Your task to perform on an android device: turn vacation reply on in the gmail app Image 0: 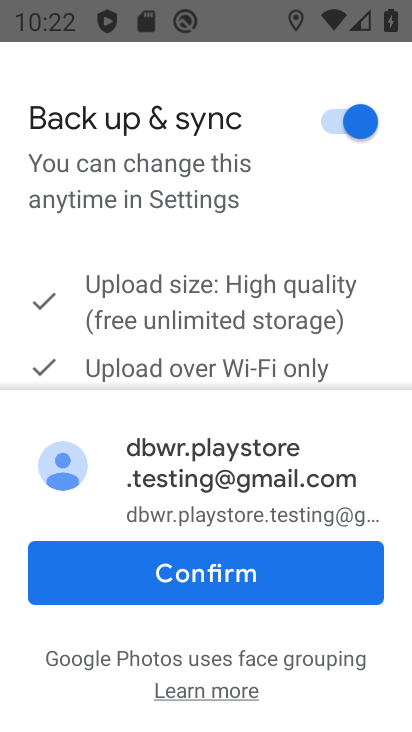
Step 0: press home button
Your task to perform on an android device: turn vacation reply on in the gmail app Image 1: 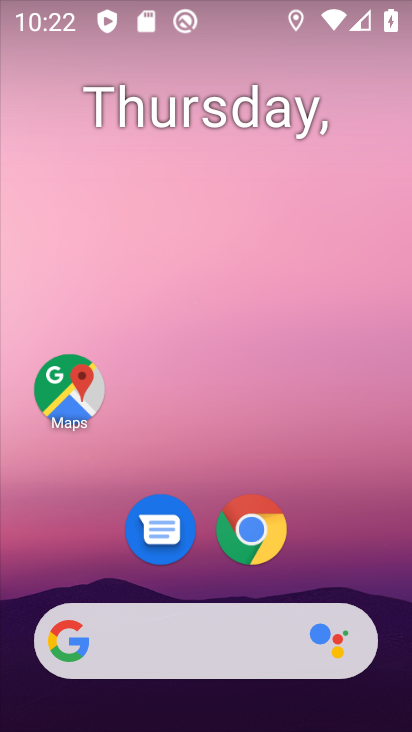
Step 1: drag from (196, 486) to (265, 16)
Your task to perform on an android device: turn vacation reply on in the gmail app Image 2: 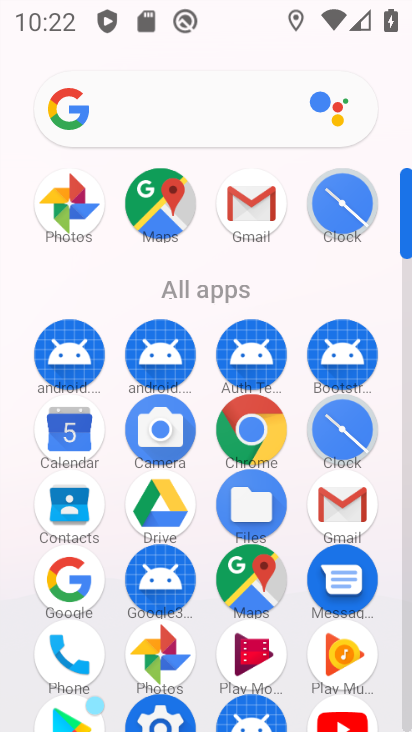
Step 2: click (255, 223)
Your task to perform on an android device: turn vacation reply on in the gmail app Image 3: 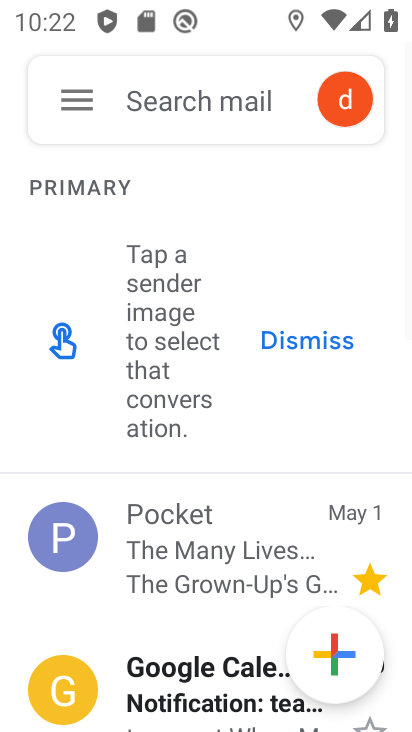
Step 3: click (73, 113)
Your task to perform on an android device: turn vacation reply on in the gmail app Image 4: 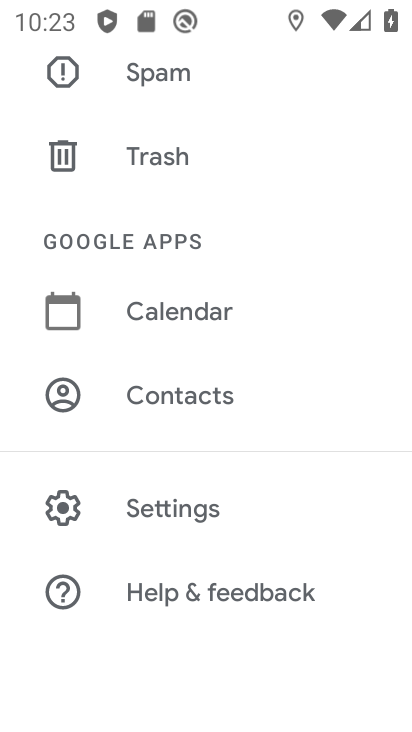
Step 4: click (154, 514)
Your task to perform on an android device: turn vacation reply on in the gmail app Image 5: 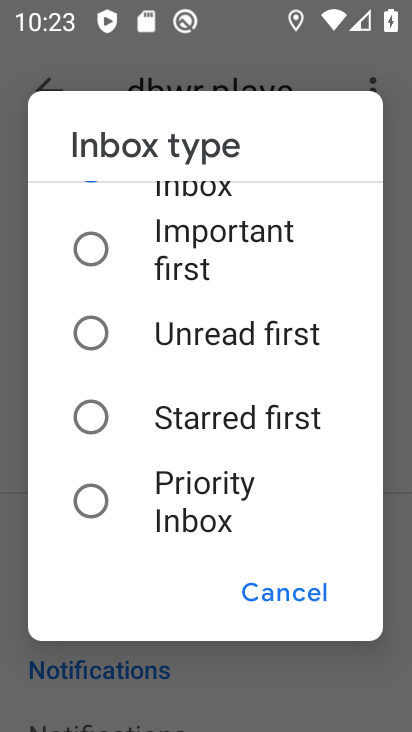
Step 5: click (261, 595)
Your task to perform on an android device: turn vacation reply on in the gmail app Image 6: 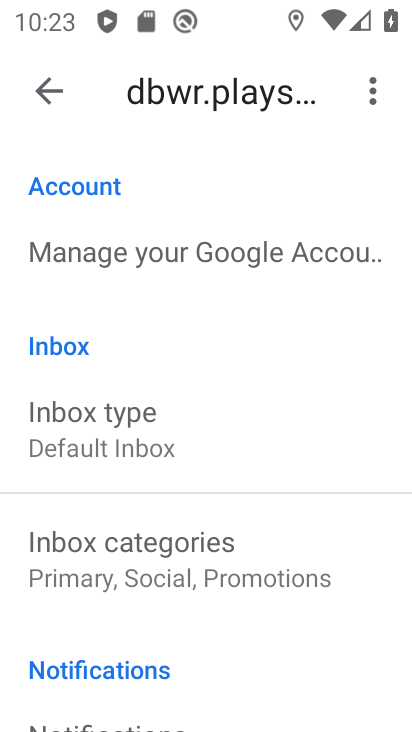
Step 6: drag from (160, 585) to (253, 151)
Your task to perform on an android device: turn vacation reply on in the gmail app Image 7: 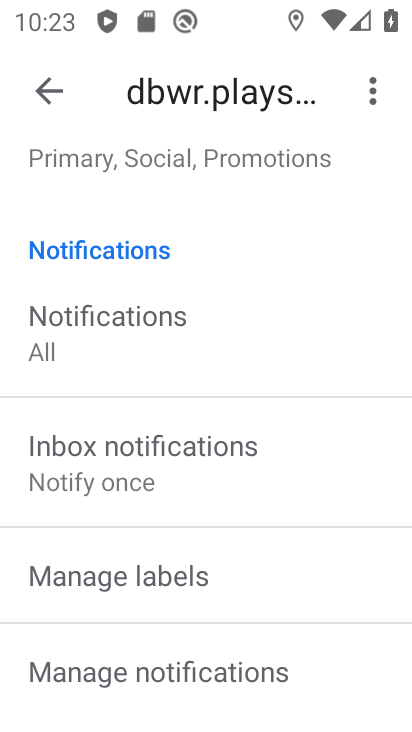
Step 7: drag from (204, 527) to (268, 168)
Your task to perform on an android device: turn vacation reply on in the gmail app Image 8: 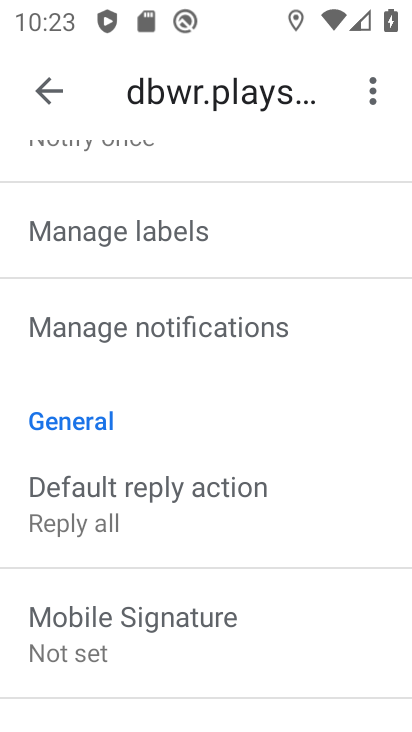
Step 8: drag from (203, 548) to (249, 181)
Your task to perform on an android device: turn vacation reply on in the gmail app Image 9: 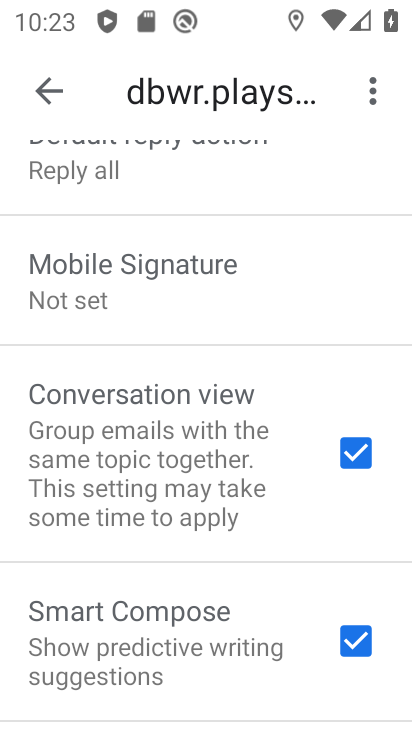
Step 9: drag from (247, 202) to (235, 617)
Your task to perform on an android device: turn vacation reply on in the gmail app Image 10: 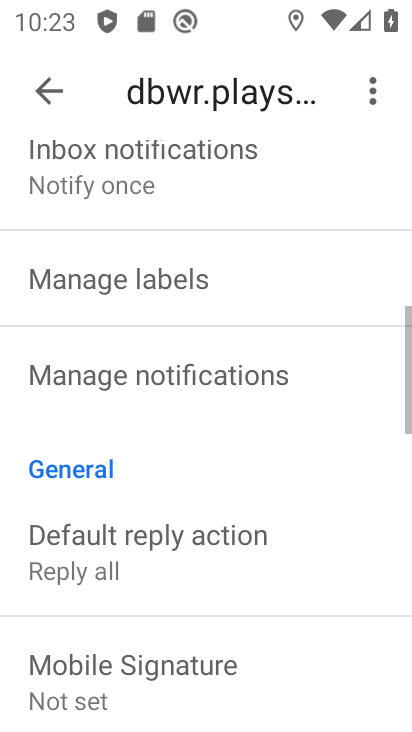
Step 10: drag from (215, 271) to (217, 500)
Your task to perform on an android device: turn vacation reply on in the gmail app Image 11: 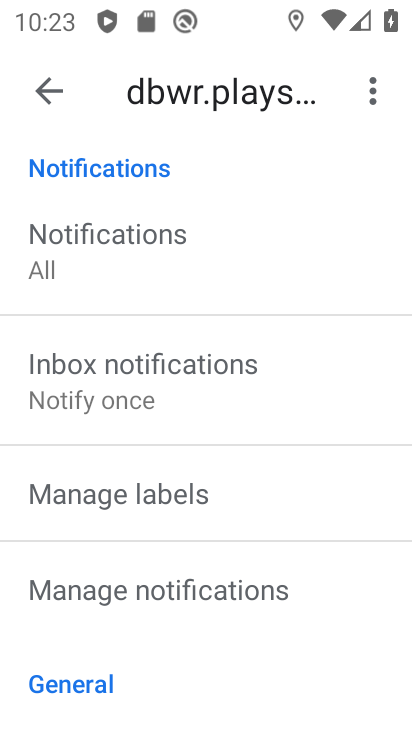
Step 11: click (40, 86)
Your task to perform on an android device: turn vacation reply on in the gmail app Image 12: 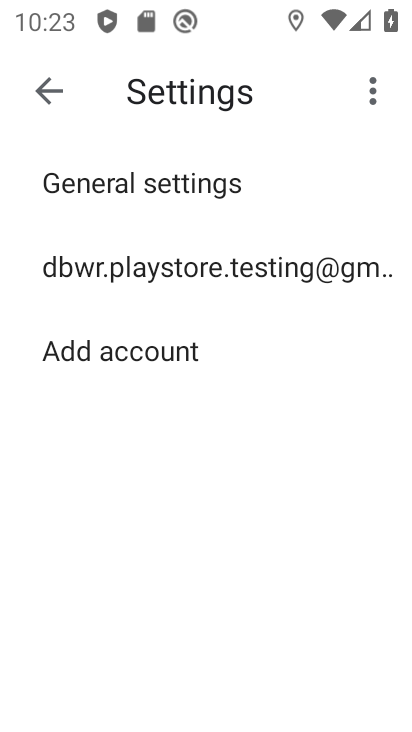
Step 12: click (179, 263)
Your task to perform on an android device: turn vacation reply on in the gmail app Image 13: 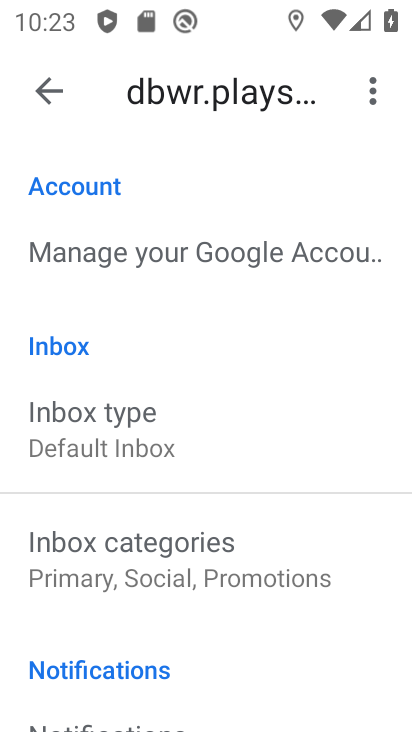
Step 13: task complete